Your task to perform on an android device: What's the weather today? Image 0: 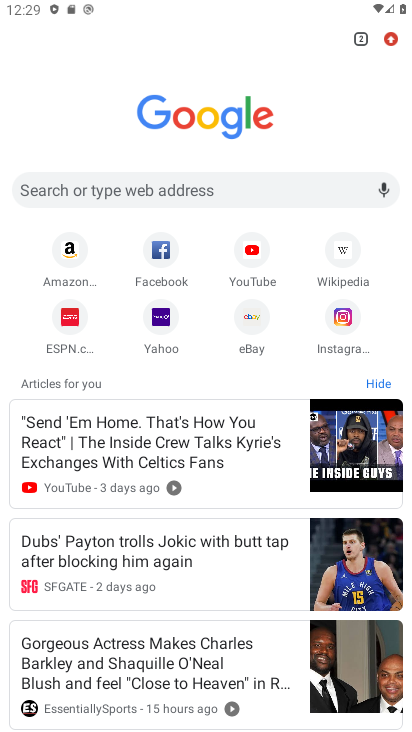
Step 0: click (257, 188)
Your task to perform on an android device: What's the weather today? Image 1: 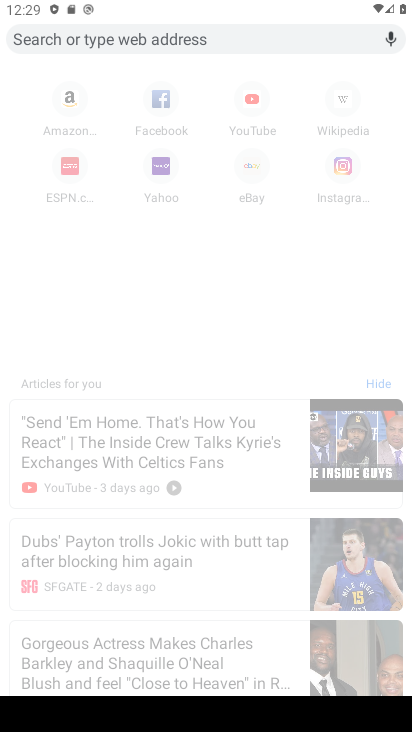
Step 1: press home button
Your task to perform on an android device: What's the weather today? Image 2: 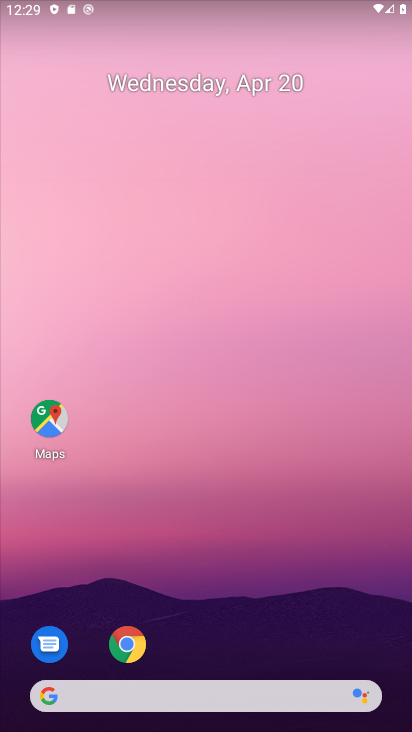
Step 2: click (50, 698)
Your task to perform on an android device: What's the weather today? Image 3: 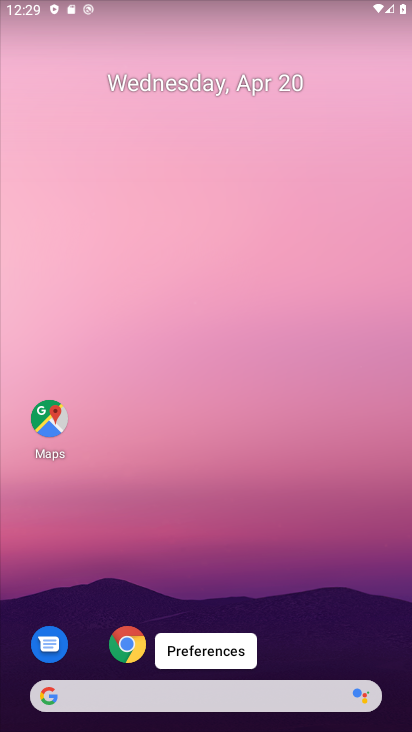
Step 3: click (50, 698)
Your task to perform on an android device: What's the weather today? Image 4: 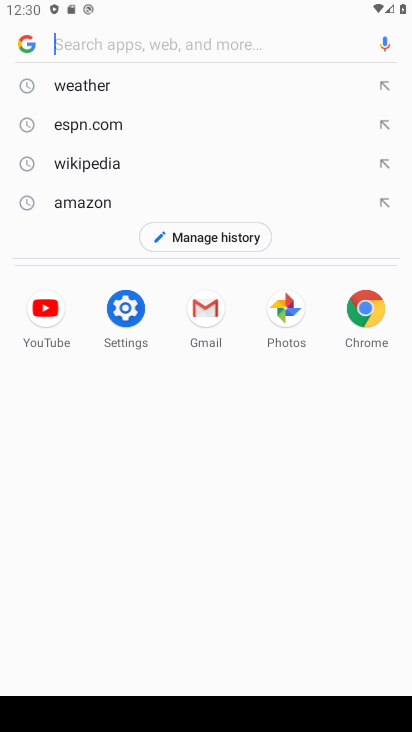
Step 4: click (96, 80)
Your task to perform on an android device: What's the weather today? Image 5: 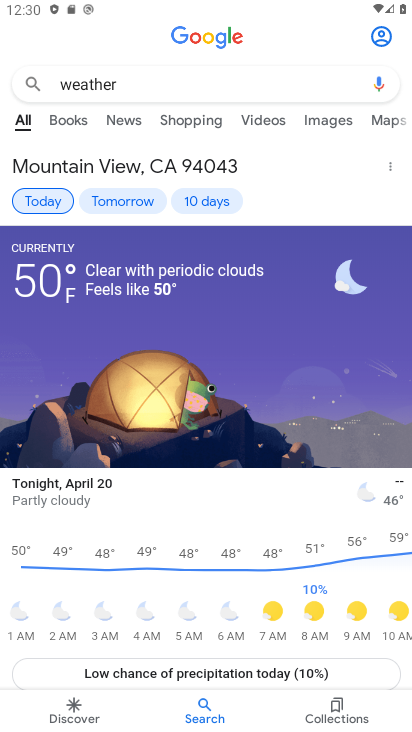
Step 5: task complete